Your task to perform on an android device: Go to Maps Image 0: 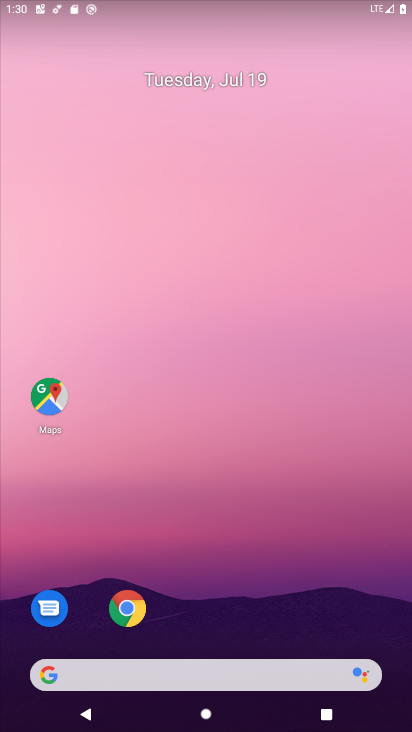
Step 0: drag from (273, 570) to (248, 9)
Your task to perform on an android device: Go to Maps Image 1: 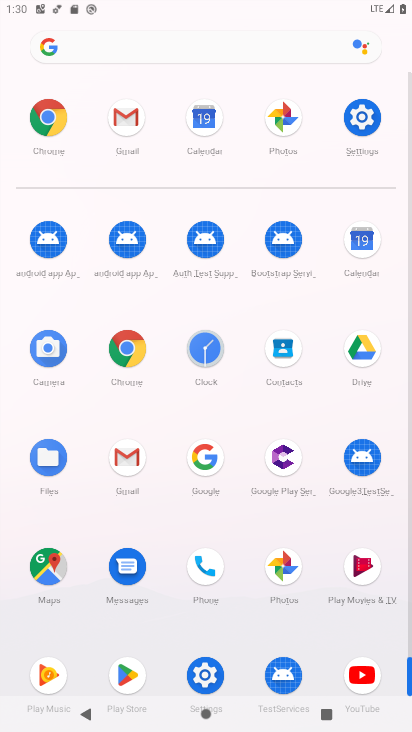
Step 1: click (50, 571)
Your task to perform on an android device: Go to Maps Image 2: 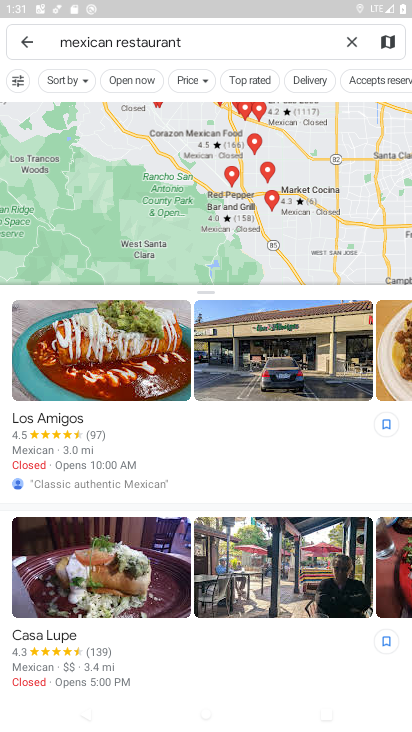
Step 2: task complete